Your task to perform on an android device: Open settings on Google Maps Image 0: 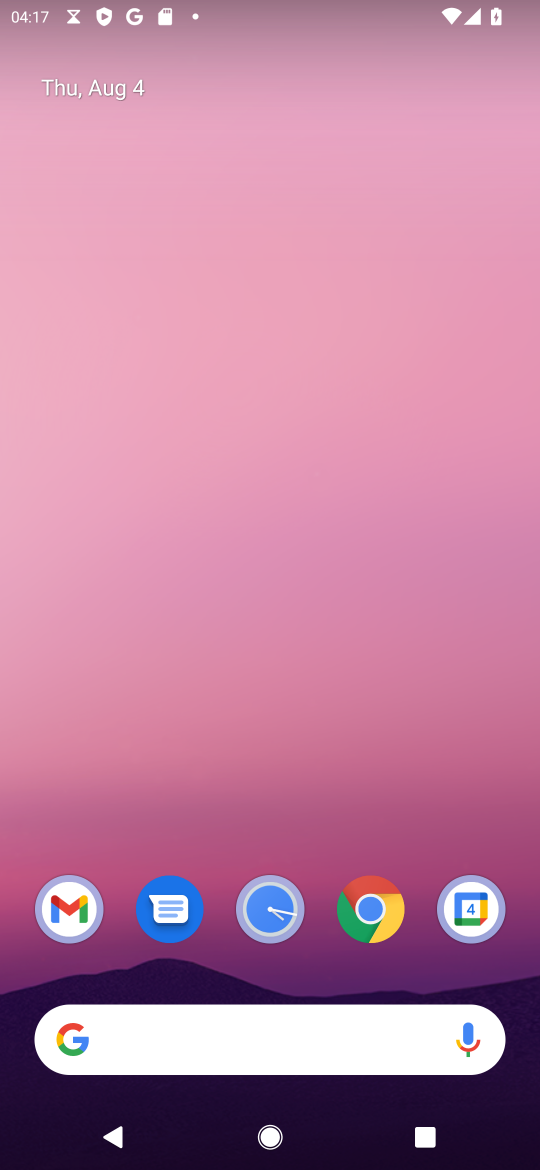
Step 0: drag from (285, 1051) to (399, 263)
Your task to perform on an android device: Open settings on Google Maps Image 1: 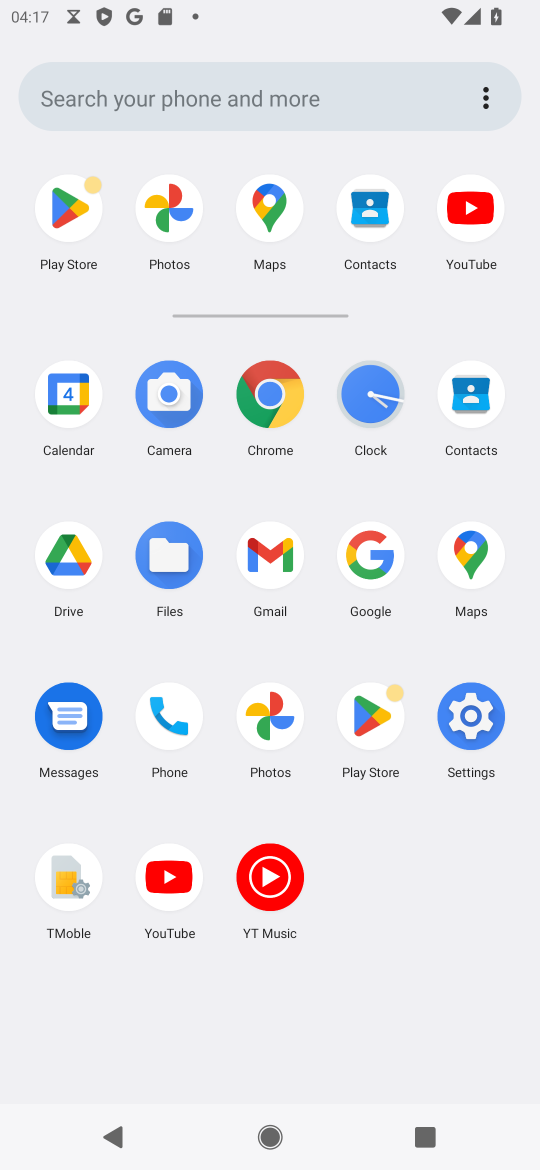
Step 1: click (458, 560)
Your task to perform on an android device: Open settings on Google Maps Image 2: 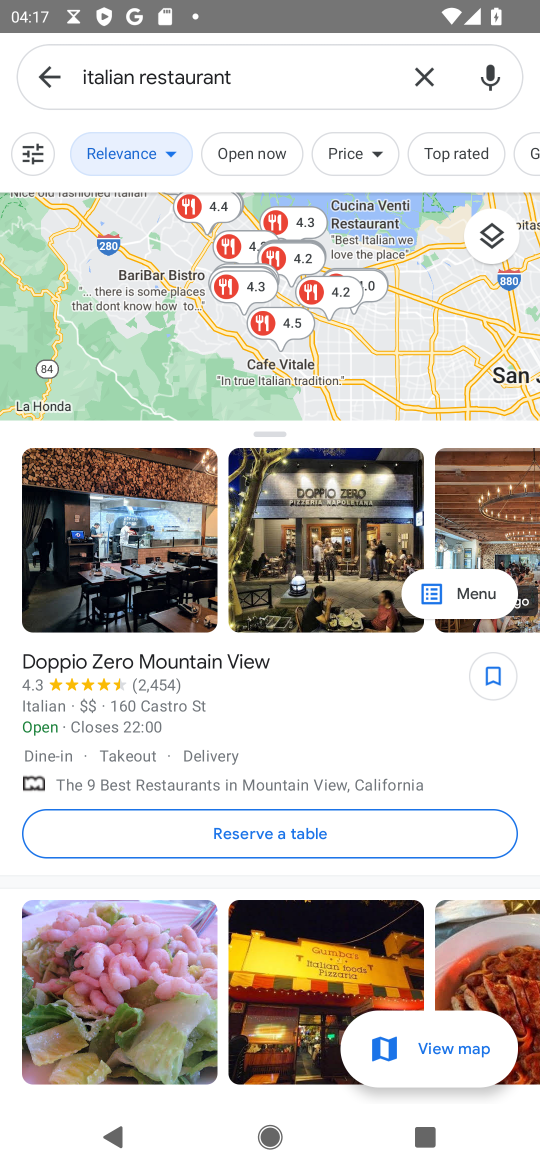
Step 2: click (424, 75)
Your task to perform on an android device: Open settings on Google Maps Image 3: 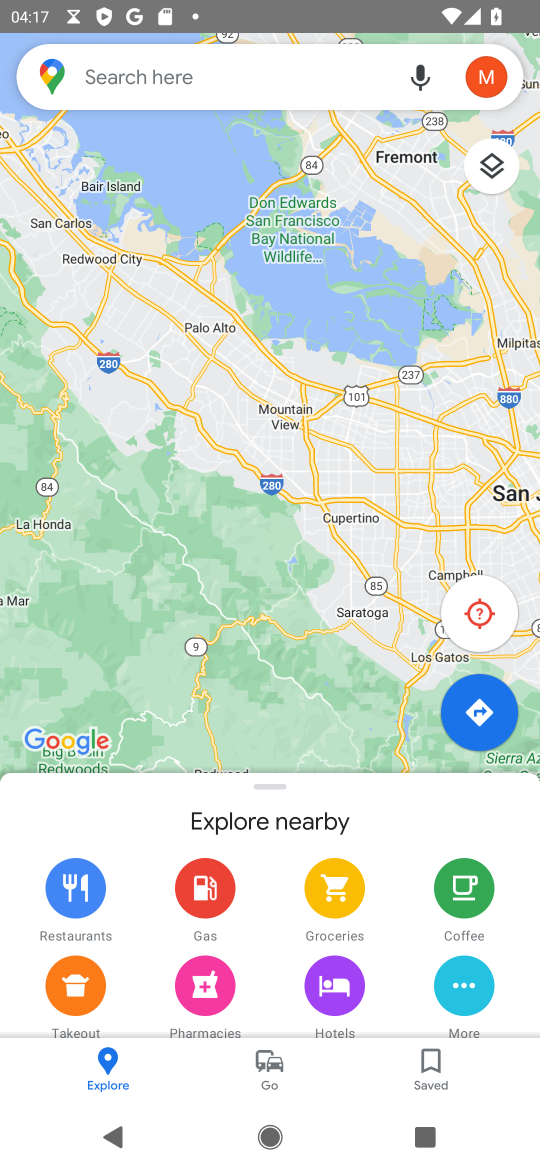
Step 3: click (473, 78)
Your task to perform on an android device: Open settings on Google Maps Image 4: 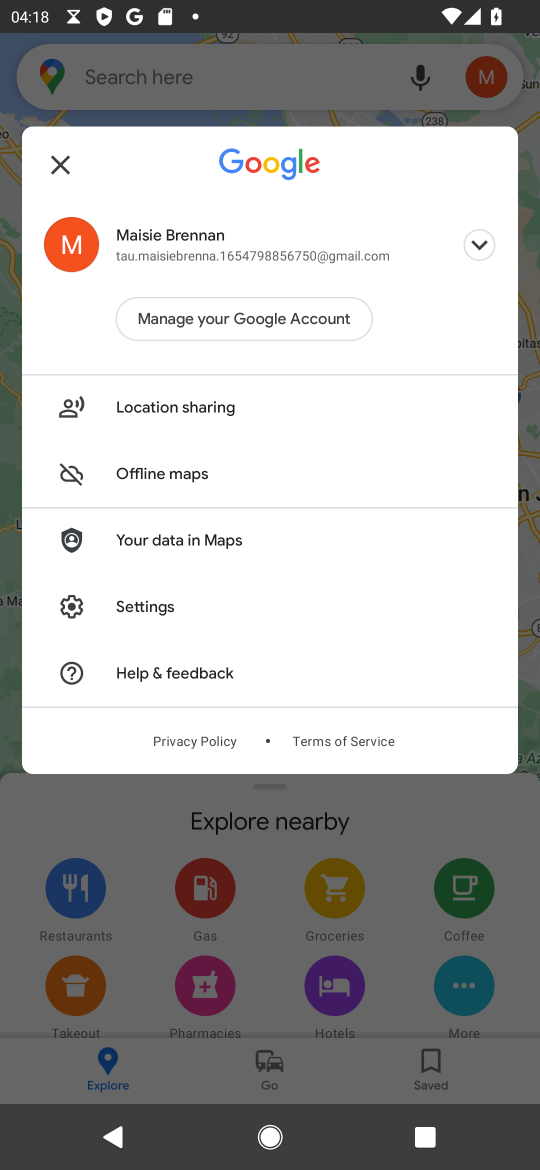
Step 4: click (144, 599)
Your task to perform on an android device: Open settings on Google Maps Image 5: 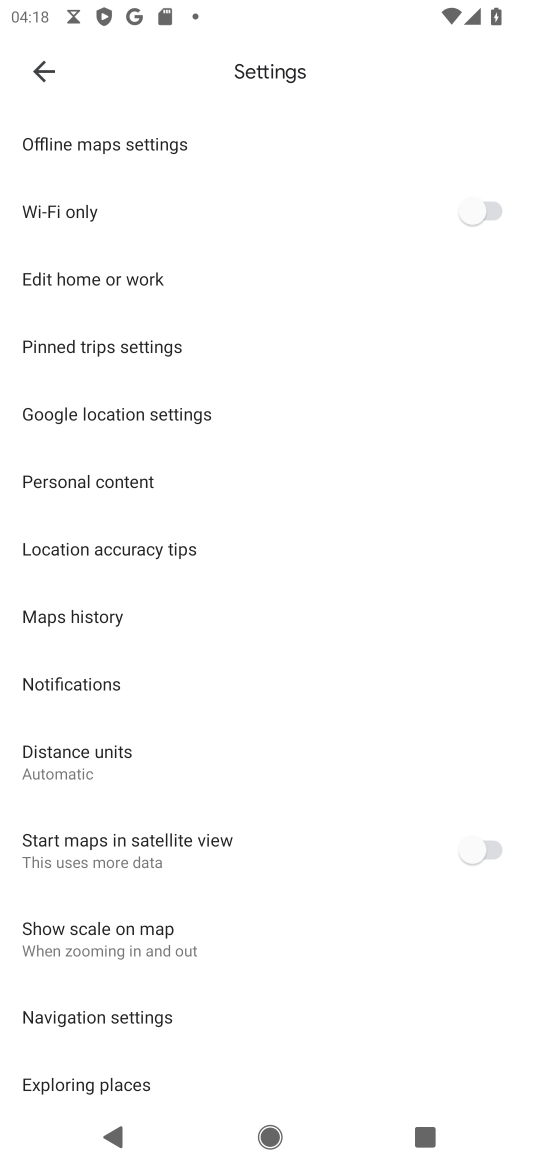
Step 5: task complete